Your task to perform on an android device: delete location history Image 0: 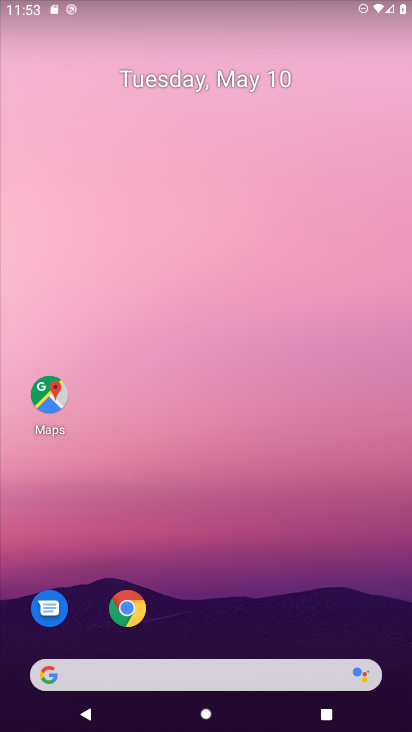
Step 0: click (54, 393)
Your task to perform on an android device: delete location history Image 1: 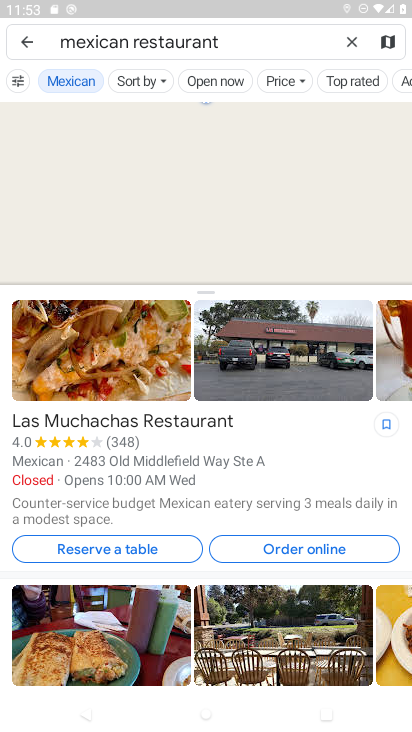
Step 1: click (29, 36)
Your task to perform on an android device: delete location history Image 2: 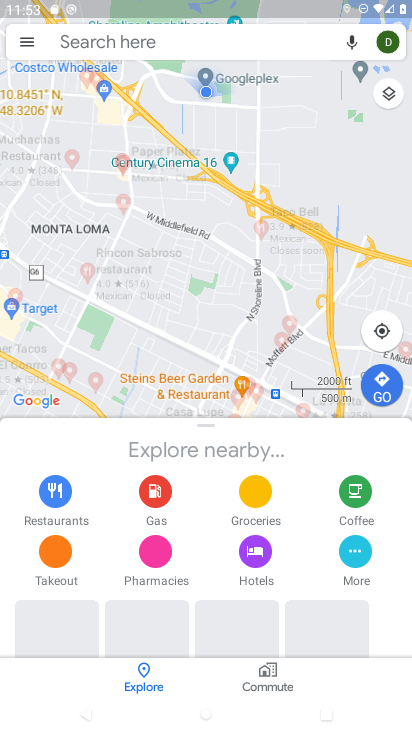
Step 2: click (29, 36)
Your task to perform on an android device: delete location history Image 3: 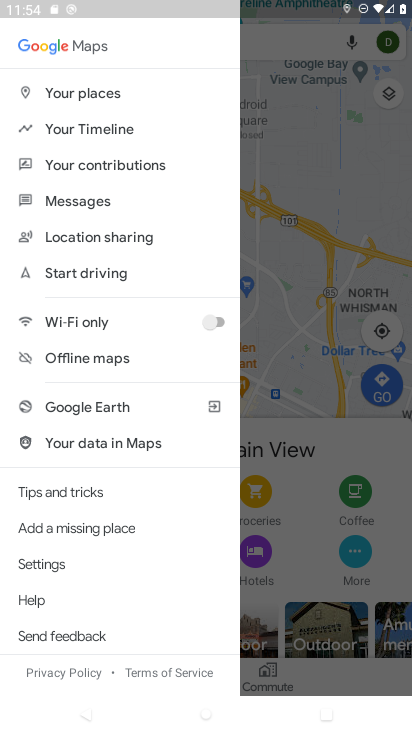
Step 3: click (99, 124)
Your task to perform on an android device: delete location history Image 4: 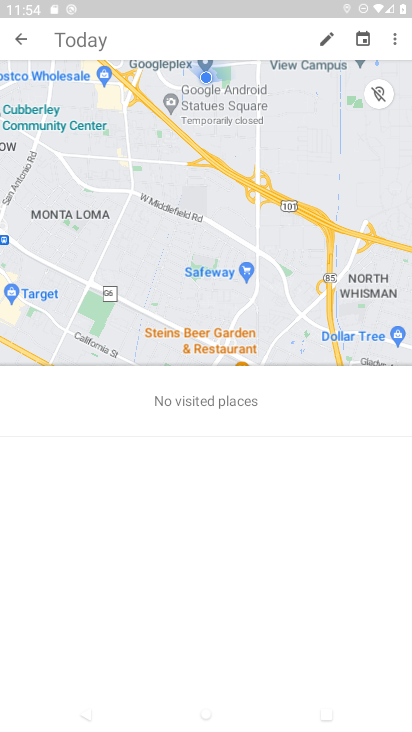
Step 4: click (392, 30)
Your task to perform on an android device: delete location history Image 5: 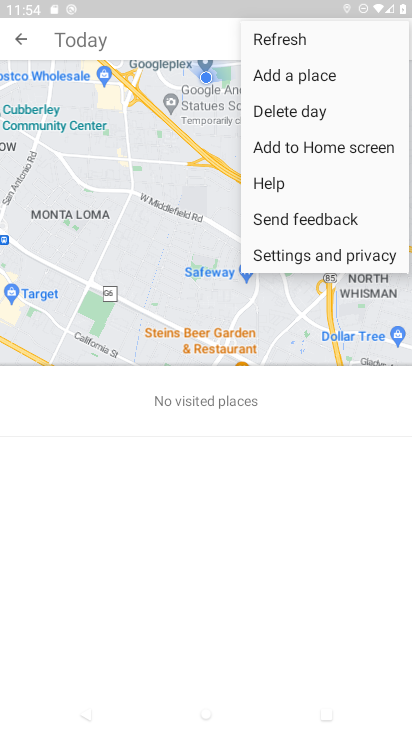
Step 5: click (350, 262)
Your task to perform on an android device: delete location history Image 6: 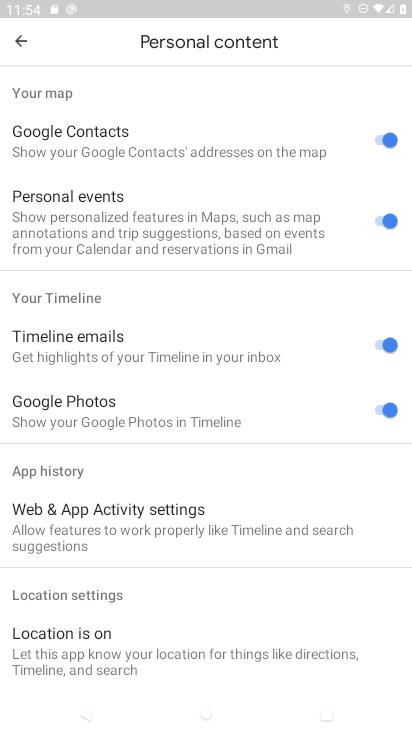
Step 6: drag from (184, 651) to (204, 233)
Your task to perform on an android device: delete location history Image 7: 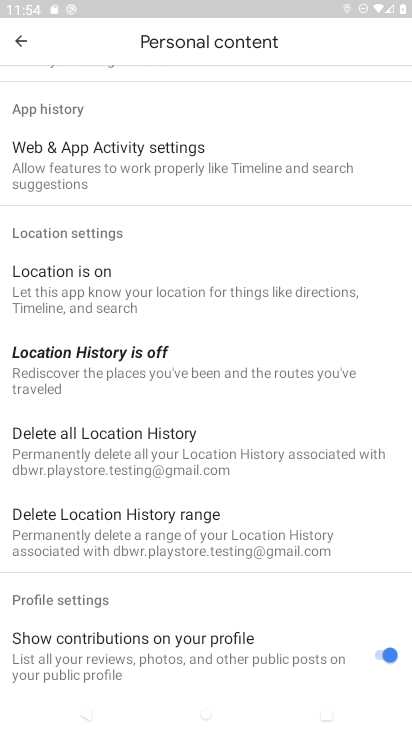
Step 7: click (165, 439)
Your task to perform on an android device: delete location history Image 8: 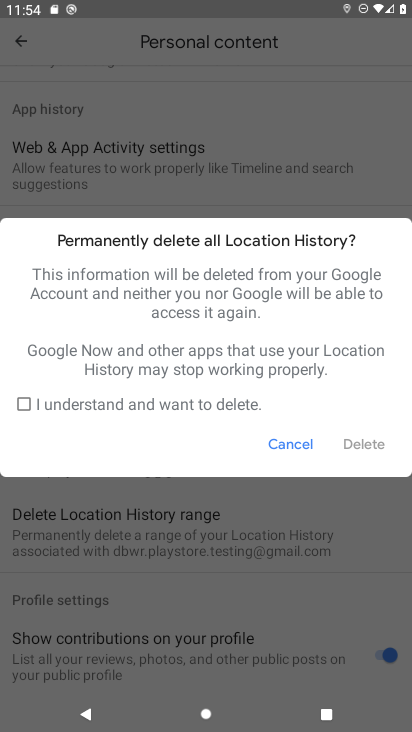
Step 8: click (26, 395)
Your task to perform on an android device: delete location history Image 9: 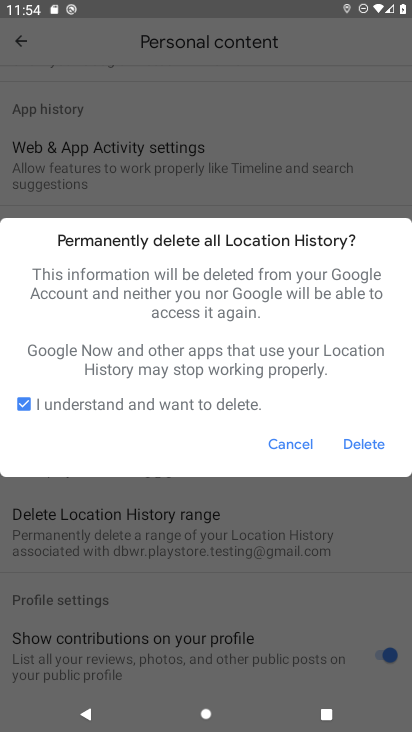
Step 9: click (359, 446)
Your task to perform on an android device: delete location history Image 10: 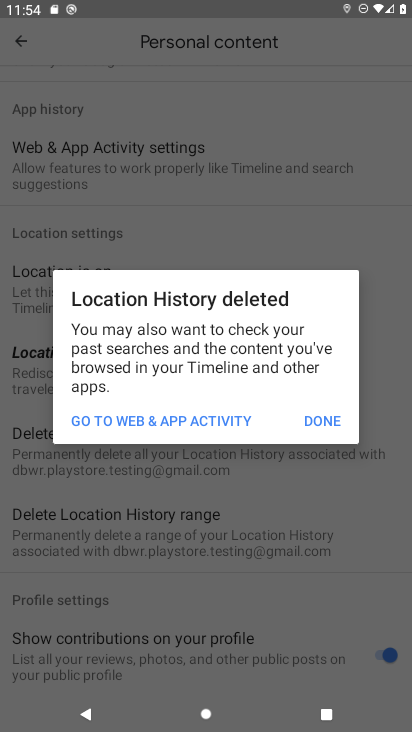
Step 10: click (339, 415)
Your task to perform on an android device: delete location history Image 11: 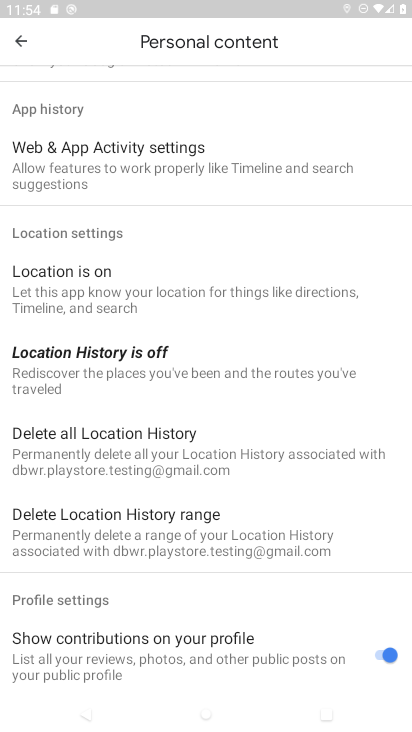
Step 11: task complete